Your task to perform on an android device: turn off notifications settings in the gmail app Image 0: 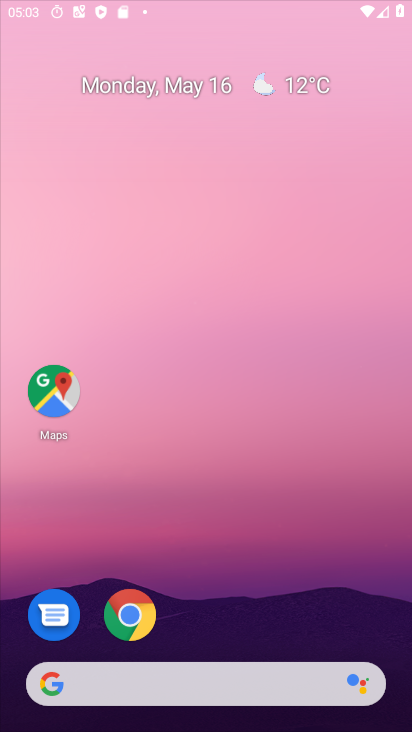
Step 0: drag from (289, 492) to (212, 178)
Your task to perform on an android device: turn off notifications settings in the gmail app Image 1: 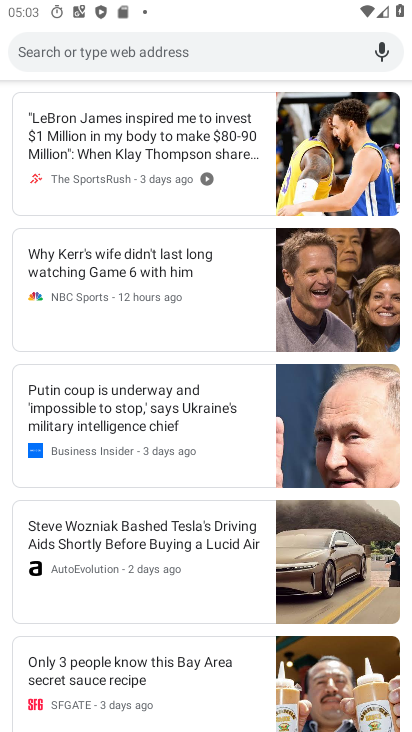
Step 1: drag from (208, 310) to (308, 657)
Your task to perform on an android device: turn off notifications settings in the gmail app Image 2: 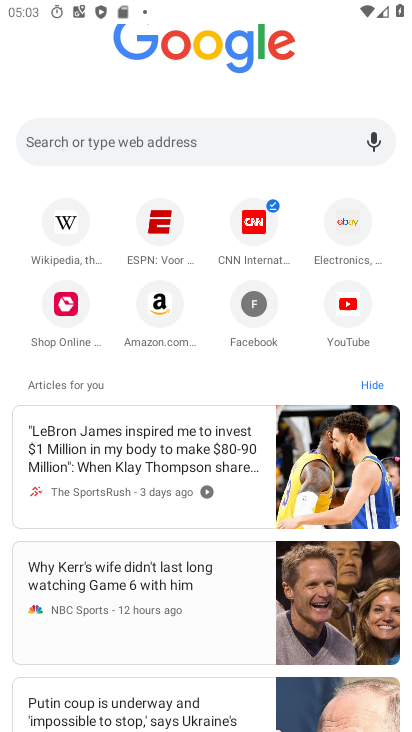
Step 2: drag from (212, 433) to (200, 683)
Your task to perform on an android device: turn off notifications settings in the gmail app Image 3: 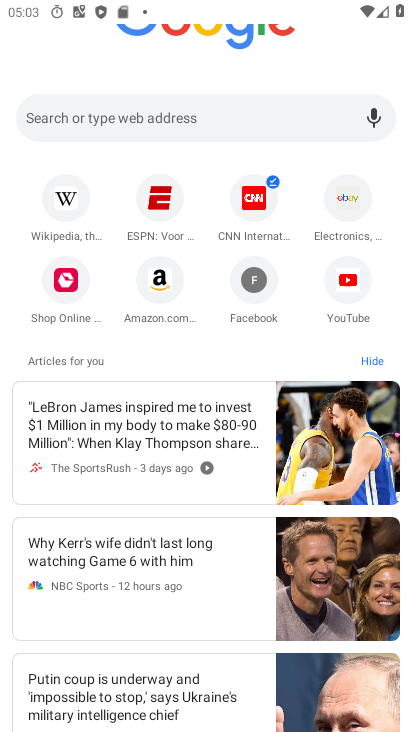
Step 3: drag from (153, 432) to (210, 634)
Your task to perform on an android device: turn off notifications settings in the gmail app Image 4: 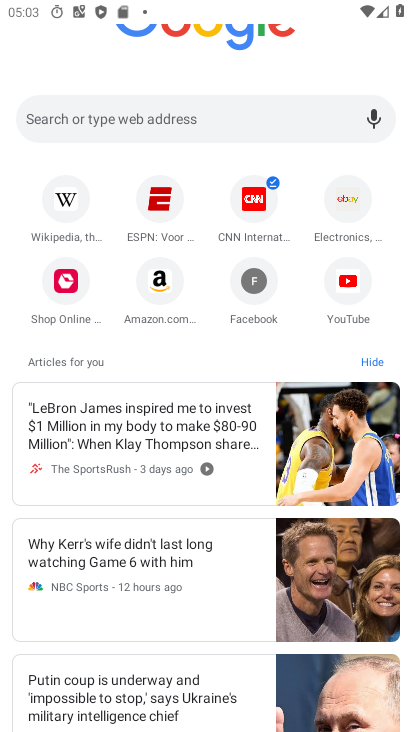
Step 4: press home button
Your task to perform on an android device: turn off notifications settings in the gmail app Image 5: 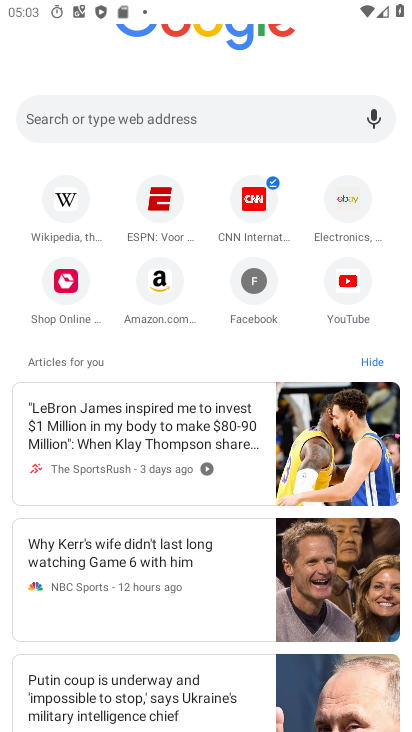
Step 5: press home button
Your task to perform on an android device: turn off notifications settings in the gmail app Image 6: 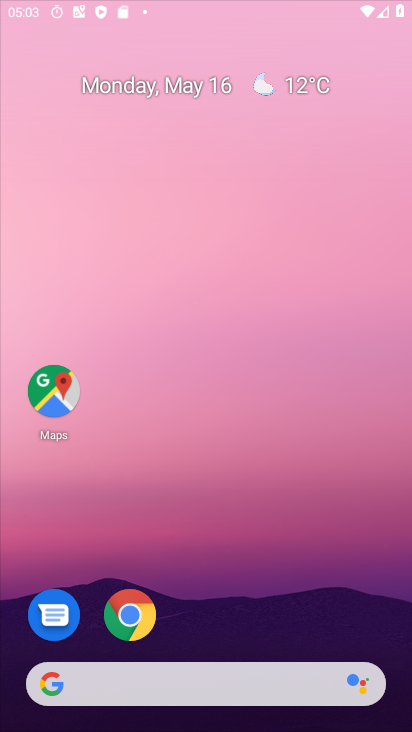
Step 6: press home button
Your task to perform on an android device: turn off notifications settings in the gmail app Image 7: 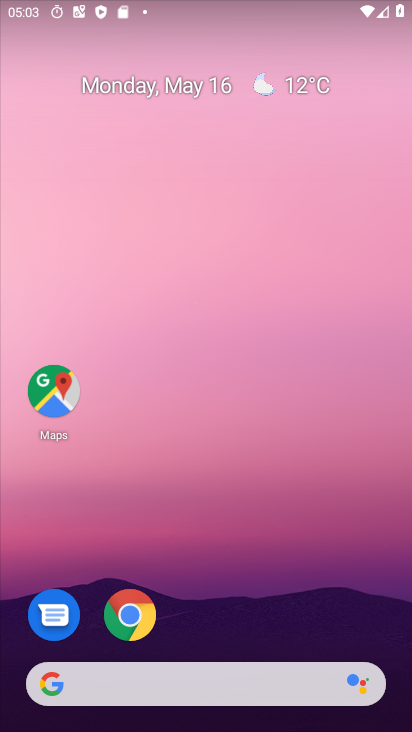
Step 7: drag from (260, 584) to (227, 2)
Your task to perform on an android device: turn off notifications settings in the gmail app Image 8: 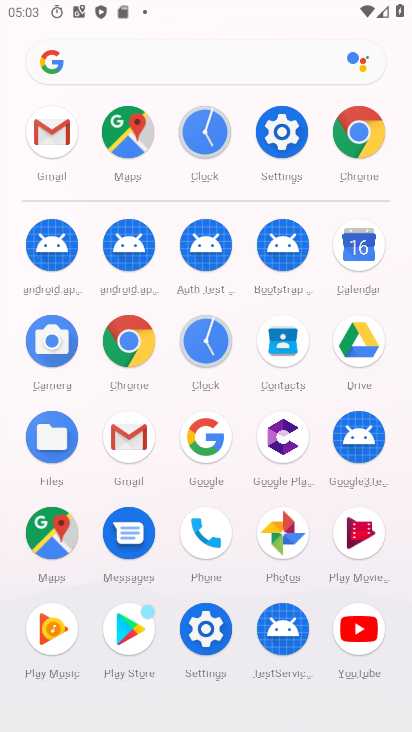
Step 8: click (127, 436)
Your task to perform on an android device: turn off notifications settings in the gmail app Image 9: 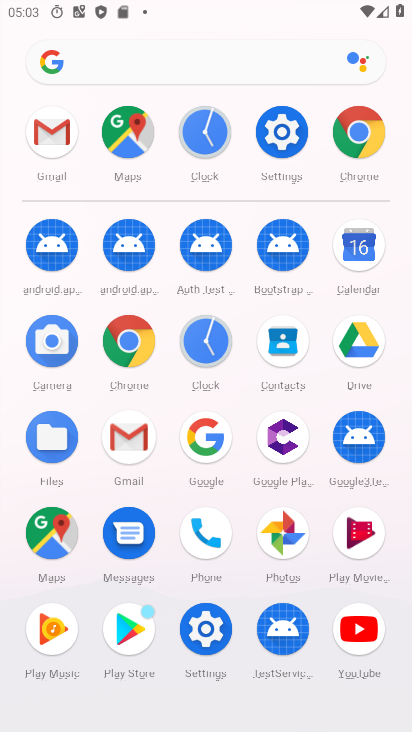
Step 9: click (128, 435)
Your task to perform on an android device: turn off notifications settings in the gmail app Image 10: 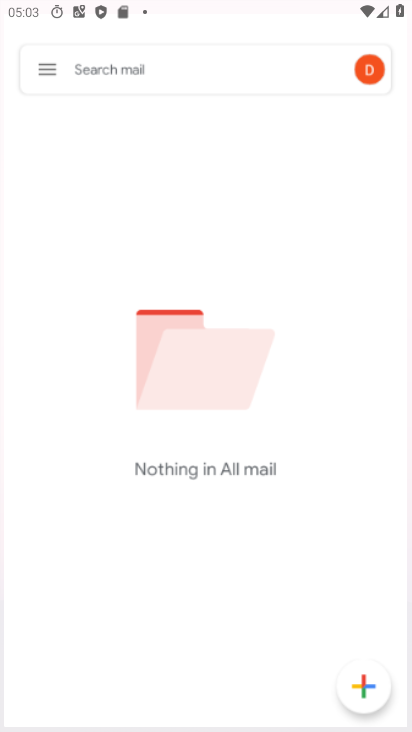
Step 10: click (128, 435)
Your task to perform on an android device: turn off notifications settings in the gmail app Image 11: 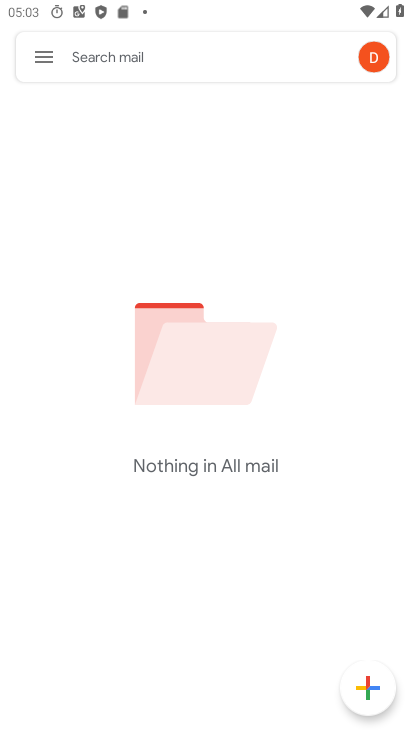
Step 11: click (126, 433)
Your task to perform on an android device: turn off notifications settings in the gmail app Image 12: 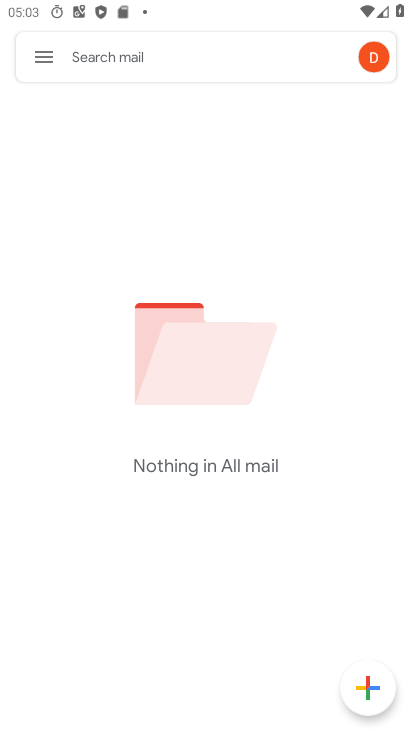
Step 12: click (44, 56)
Your task to perform on an android device: turn off notifications settings in the gmail app Image 13: 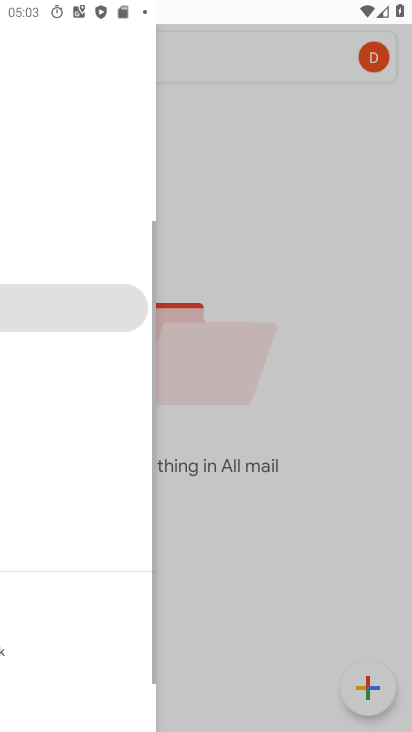
Step 13: click (44, 56)
Your task to perform on an android device: turn off notifications settings in the gmail app Image 14: 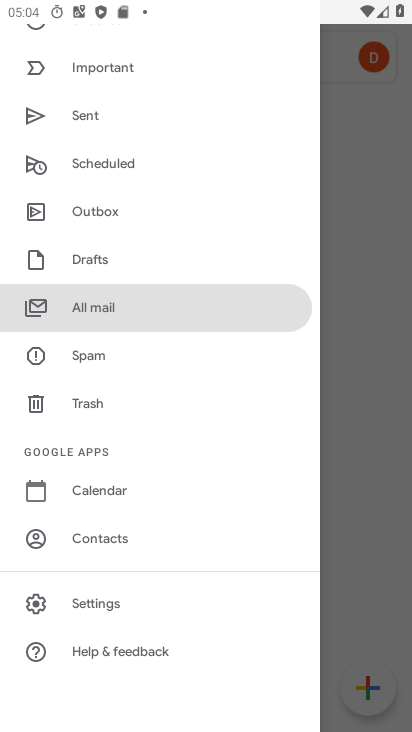
Step 14: drag from (86, 491) to (88, 208)
Your task to perform on an android device: turn off notifications settings in the gmail app Image 15: 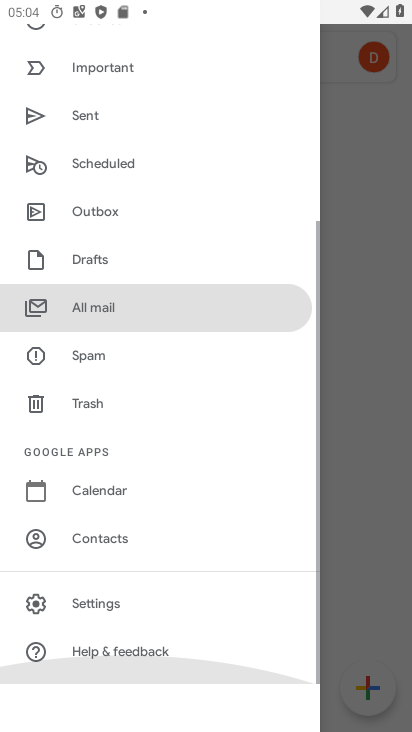
Step 15: drag from (118, 415) to (146, 41)
Your task to perform on an android device: turn off notifications settings in the gmail app Image 16: 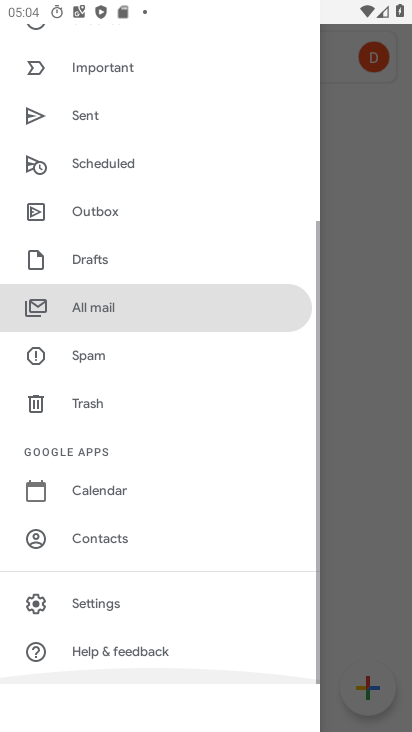
Step 16: drag from (195, 359) to (124, 53)
Your task to perform on an android device: turn off notifications settings in the gmail app Image 17: 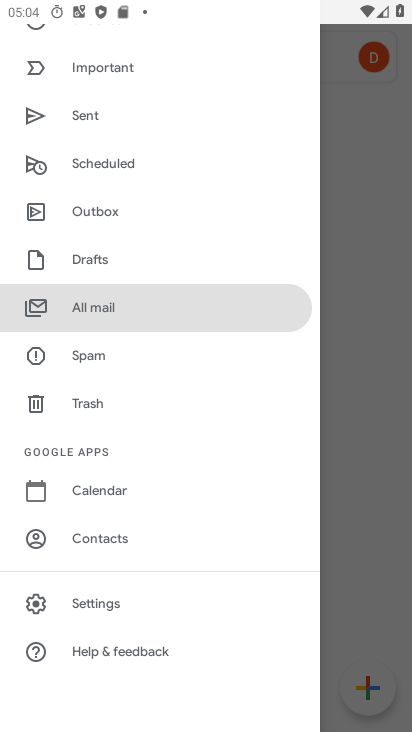
Step 17: click (83, 596)
Your task to perform on an android device: turn off notifications settings in the gmail app Image 18: 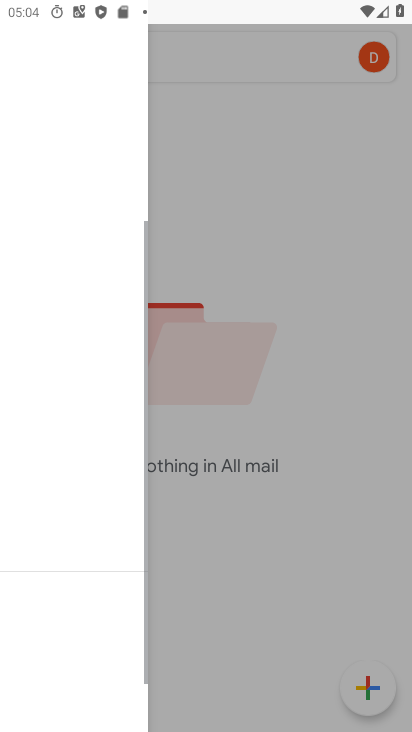
Step 18: click (83, 597)
Your task to perform on an android device: turn off notifications settings in the gmail app Image 19: 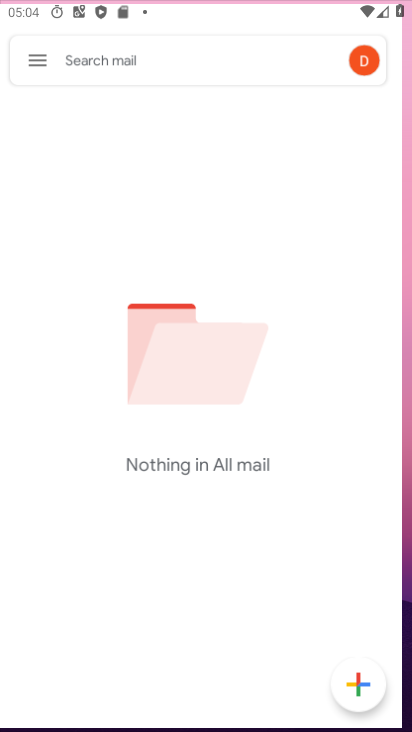
Step 19: click (83, 598)
Your task to perform on an android device: turn off notifications settings in the gmail app Image 20: 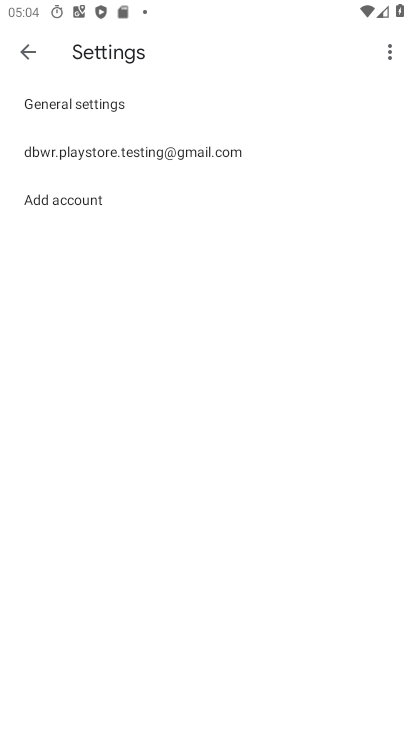
Step 20: click (94, 147)
Your task to perform on an android device: turn off notifications settings in the gmail app Image 21: 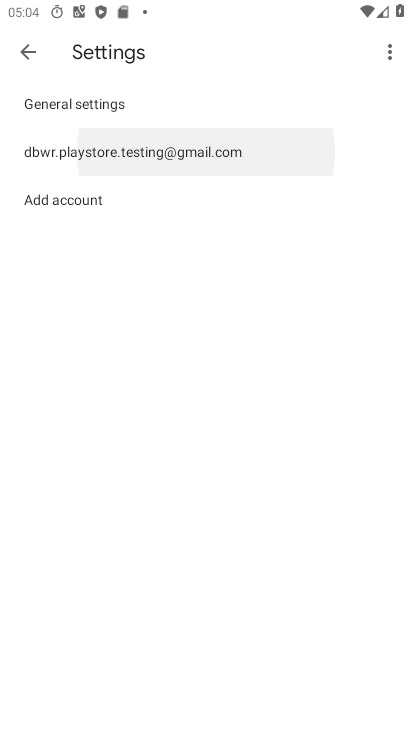
Step 21: click (94, 147)
Your task to perform on an android device: turn off notifications settings in the gmail app Image 22: 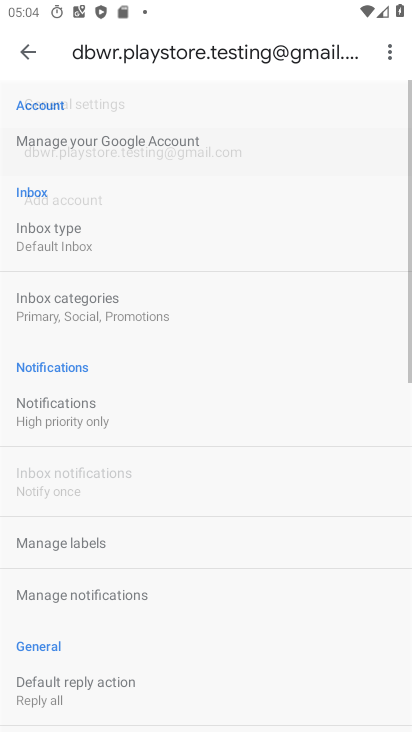
Step 22: click (94, 147)
Your task to perform on an android device: turn off notifications settings in the gmail app Image 23: 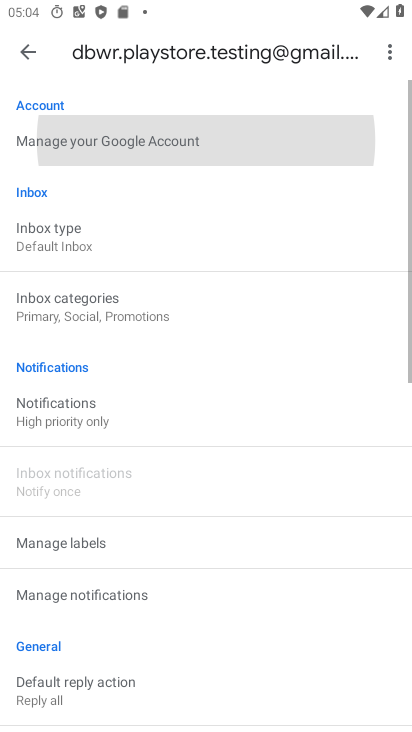
Step 23: click (94, 147)
Your task to perform on an android device: turn off notifications settings in the gmail app Image 24: 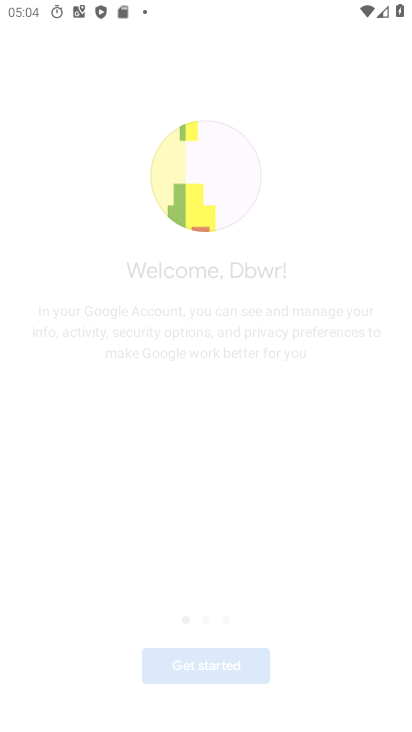
Step 24: drag from (191, 472) to (212, 111)
Your task to perform on an android device: turn off notifications settings in the gmail app Image 25: 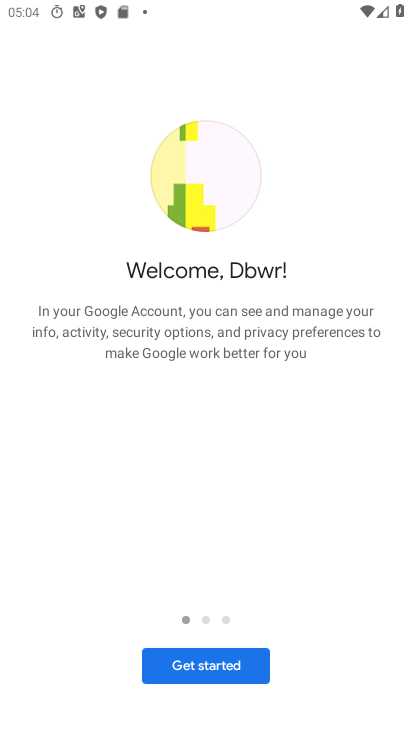
Step 25: drag from (279, 495) to (227, 190)
Your task to perform on an android device: turn off notifications settings in the gmail app Image 26: 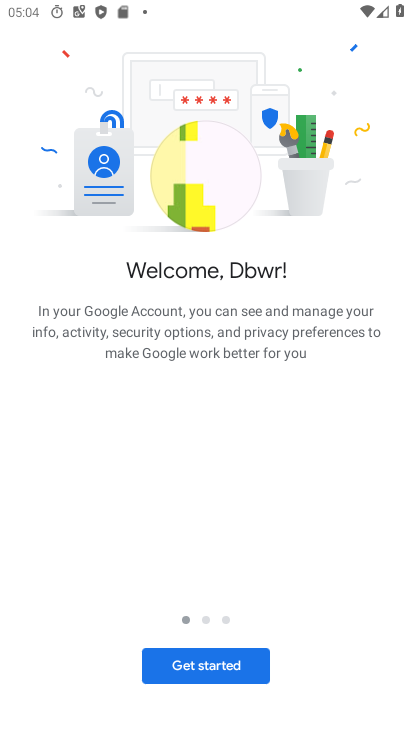
Step 26: click (198, 667)
Your task to perform on an android device: turn off notifications settings in the gmail app Image 27: 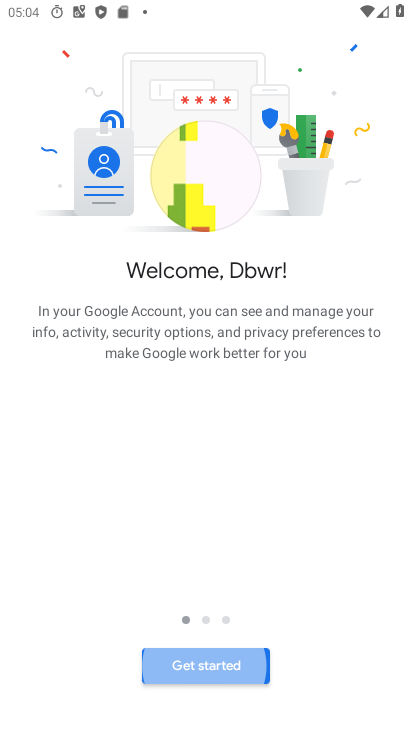
Step 27: click (257, 648)
Your task to perform on an android device: turn off notifications settings in the gmail app Image 28: 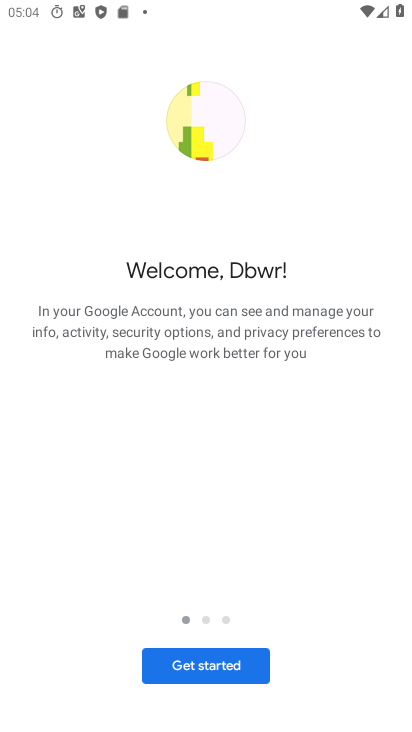
Step 28: click (181, 664)
Your task to perform on an android device: turn off notifications settings in the gmail app Image 29: 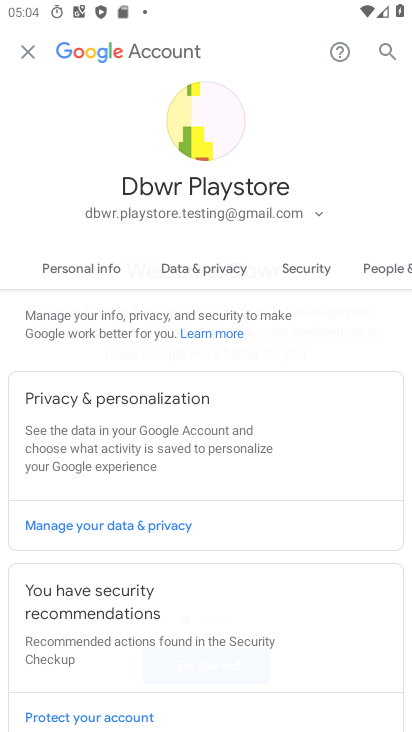
Step 29: click (187, 664)
Your task to perform on an android device: turn off notifications settings in the gmail app Image 30: 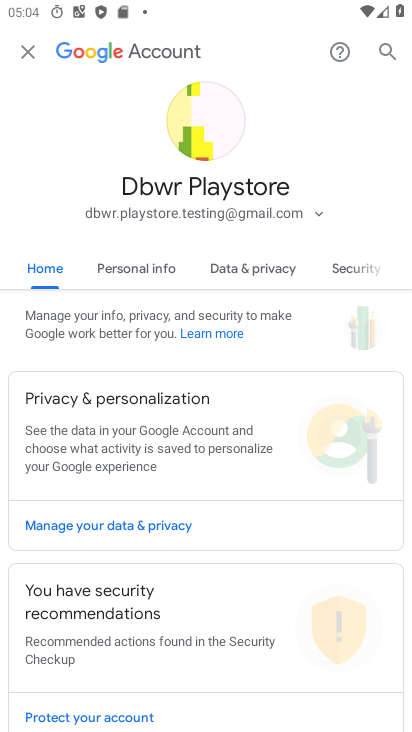
Step 30: click (193, 670)
Your task to perform on an android device: turn off notifications settings in the gmail app Image 31: 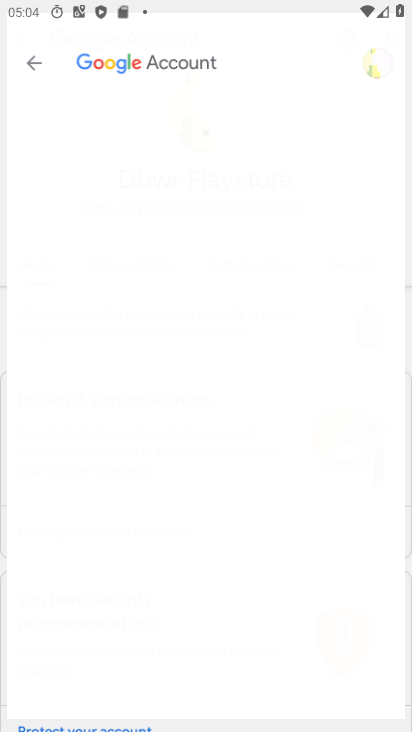
Step 31: click (193, 670)
Your task to perform on an android device: turn off notifications settings in the gmail app Image 32: 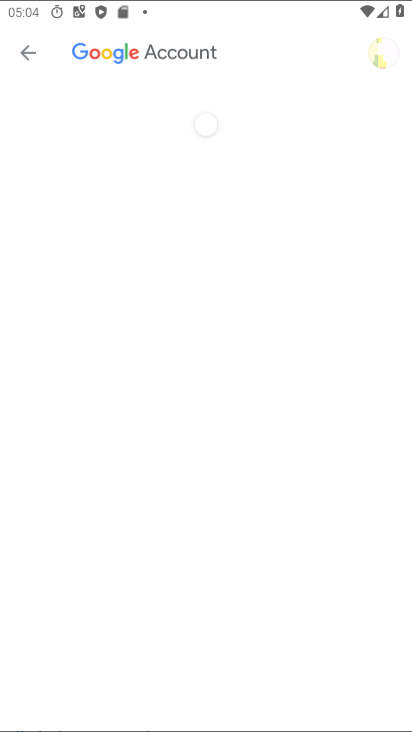
Step 32: click (195, 670)
Your task to perform on an android device: turn off notifications settings in the gmail app Image 33: 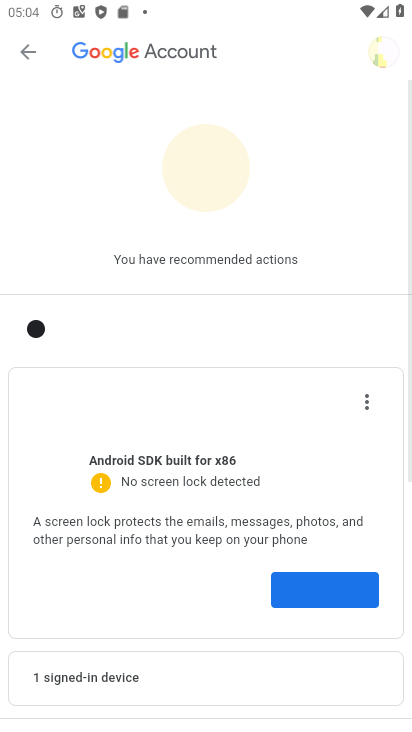
Step 33: click (23, 56)
Your task to perform on an android device: turn off notifications settings in the gmail app Image 34: 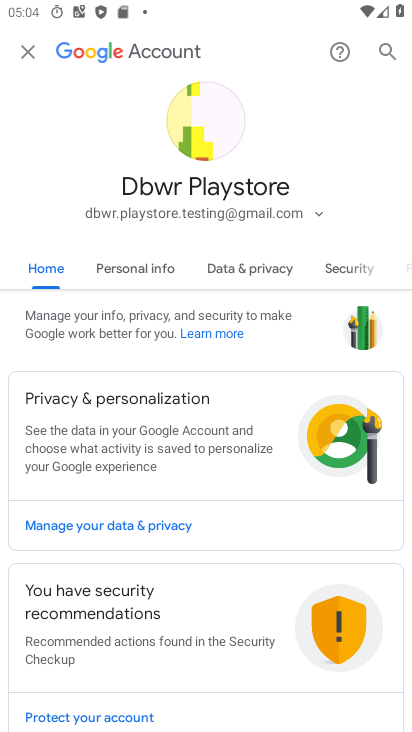
Step 34: click (323, 590)
Your task to perform on an android device: turn off notifications settings in the gmail app Image 35: 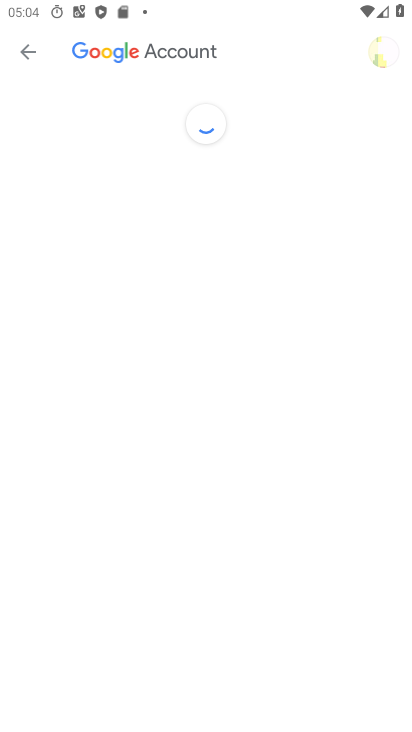
Step 35: drag from (193, 477) to (213, 110)
Your task to perform on an android device: turn off notifications settings in the gmail app Image 36: 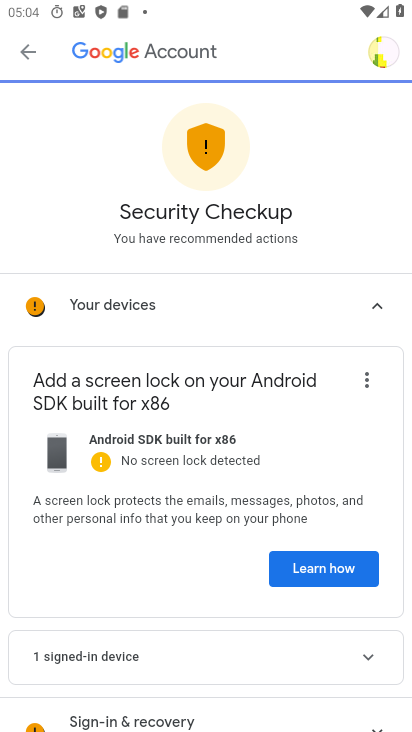
Step 36: click (331, 566)
Your task to perform on an android device: turn off notifications settings in the gmail app Image 37: 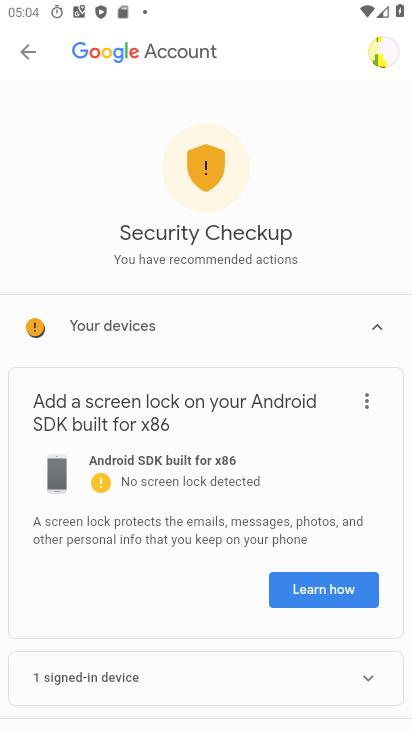
Step 37: click (332, 567)
Your task to perform on an android device: turn off notifications settings in the gmail app Image 38: 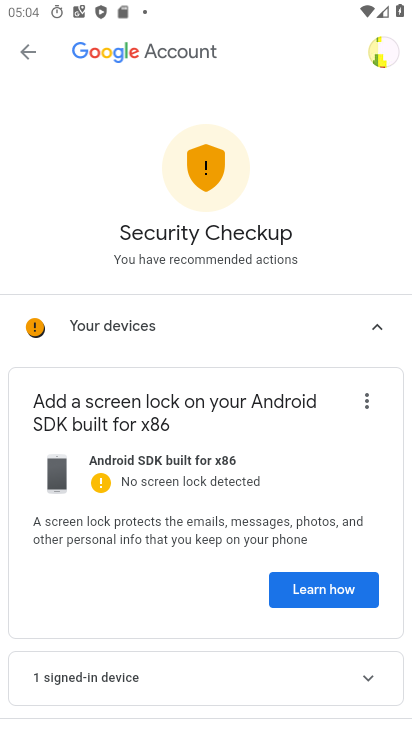
Step 38: click (333, 566)
Your task to perform on an android device: turn off notifications settings in the gmail app Image 39: 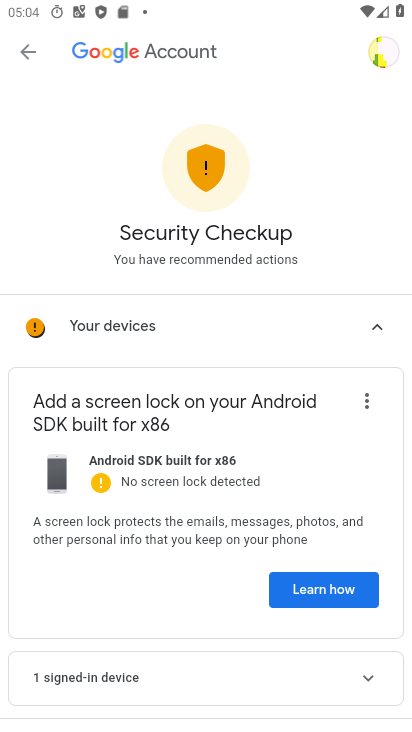
Step 39: click (333, 566)
Your task to perform on an android device: turn off notifications settings in the gmail app Image 40: 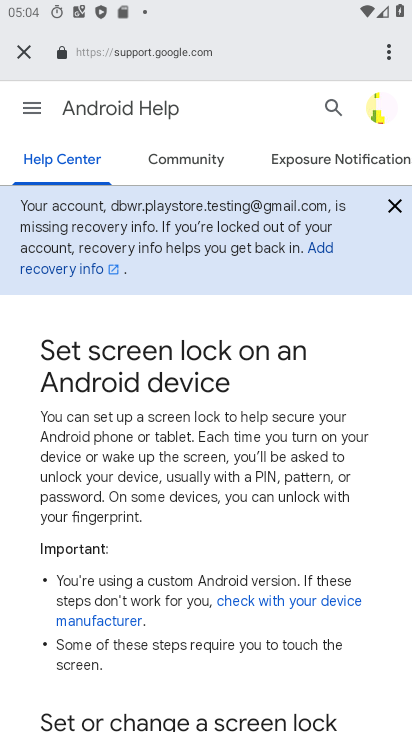
Step 40: task complete